Your task to perform on an android device: What's on my calendar tomorrow? Image 0: 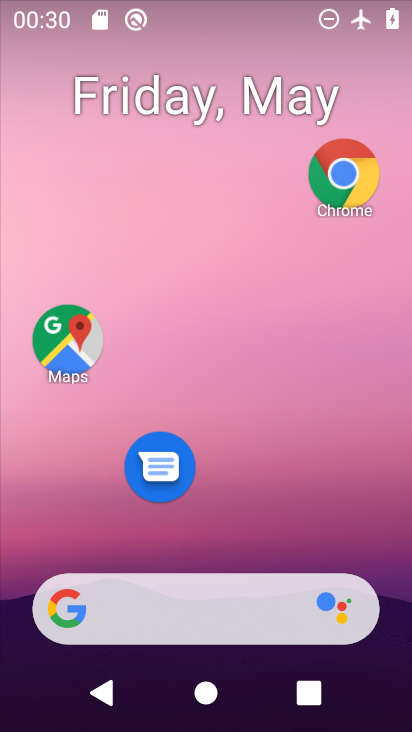
Step 0: drag from (275, 550) to (269, 289)
Your task to perform on an android device: What's on my calendar tomorrow? Image 1: 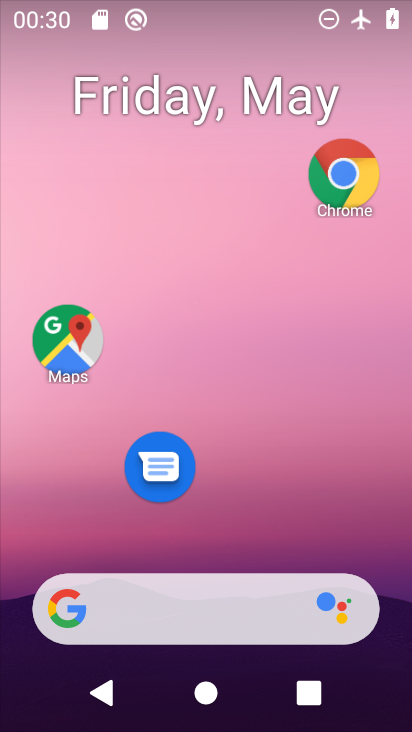
Step 1: drag from (268, 533) to (292, 320)
Your task to perform on an android device: What's on my calendar tomorrow? Image 2: 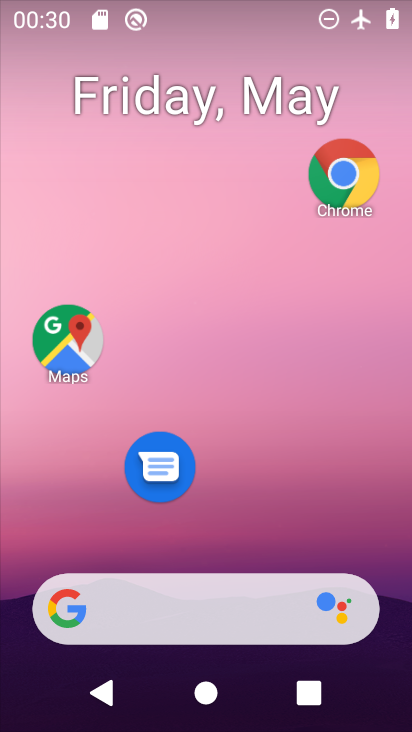
Step 2: drag from (235, 563) to (265, 242)
Your task to perform on an android device: What's on my calendar tomorrow? Image 3: 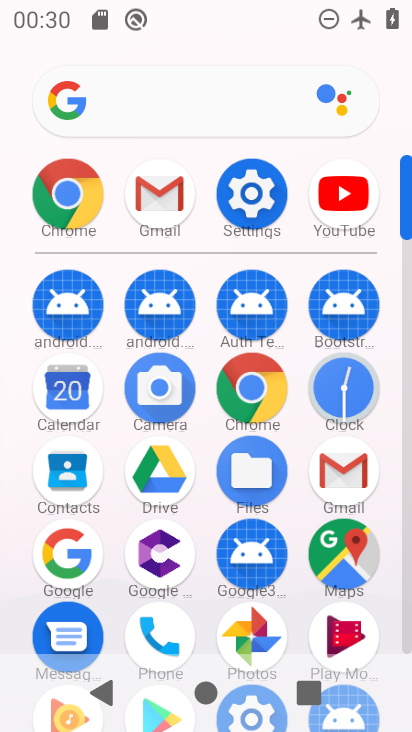
Step 3: click (53, 200)
Your task to perform on an android device: What's on my calendar tomorrow? Image 4: 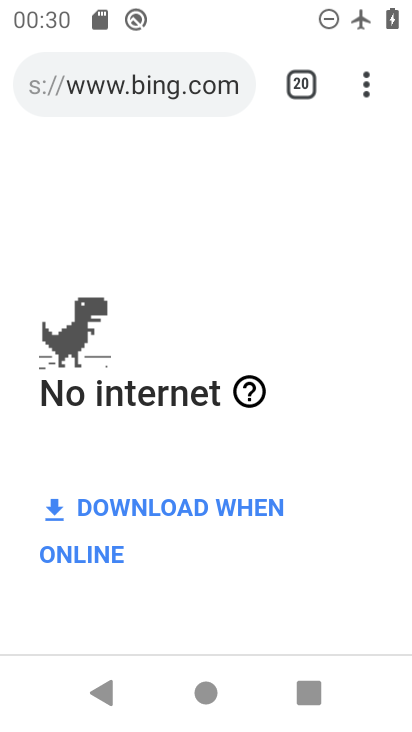
Step 4: click (352, 84)
Your task to perform on an android device: What's on my calendar tomorrow? Image 5: 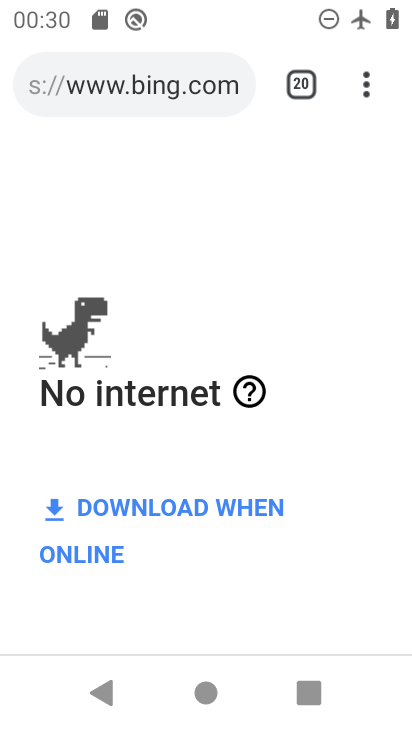
Step 5: click (356, 78)
Your task to perform on an android device: What's on my calendar tomorrow? Image 6: 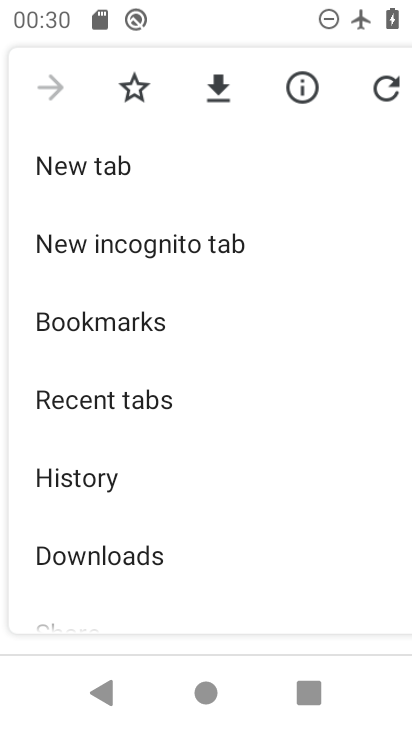
Step 6: click (97, 149)
Your task to perform on an android device: What's on my calendar tomorrow? Image 7: 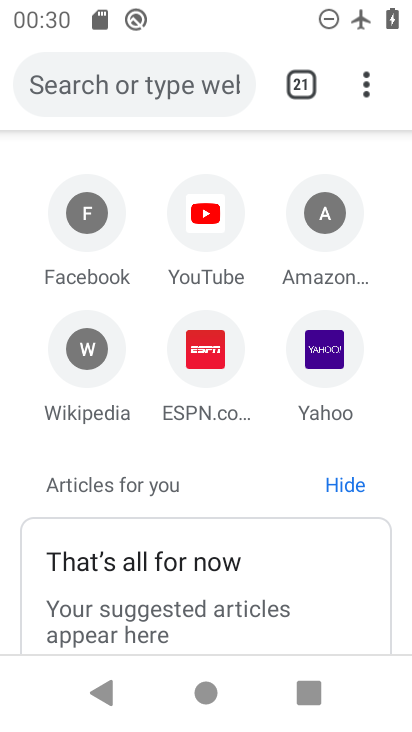
Step 7: click (131, 77)
Your task to perform on an android device: What's on my calendar tomorrow? Image 8: 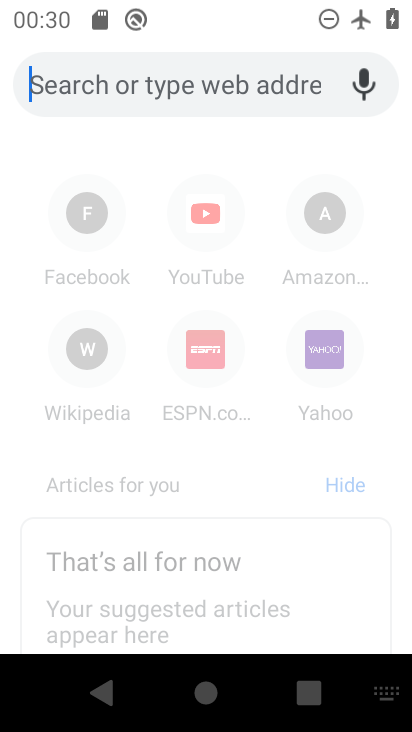
Step 8: click (170, 84)
Your task to perform on an android device: What's on my calendar tomorrow? Image 9: 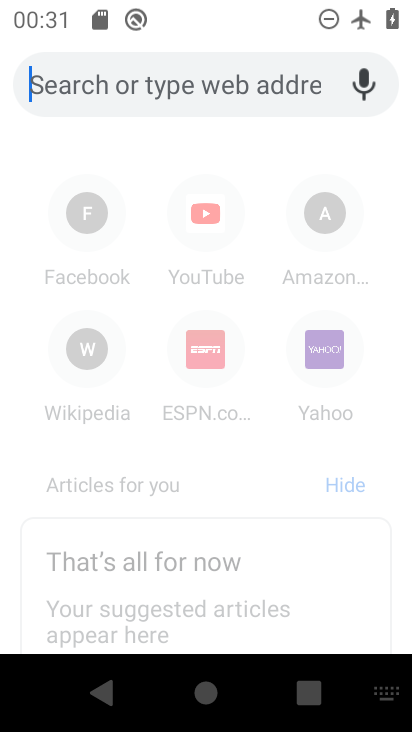
Step 9: type "What's on my calendar tomorrow?"
Your task to perform on an android device: What's on my calendar tomorrow? Image 10: 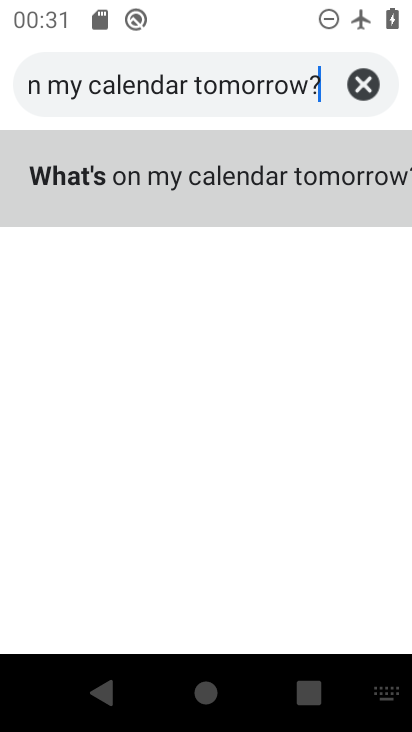
Step 10: click (85, 160)
Your task to perform on an android device: What's on my calendar tomorrow? Image 11: 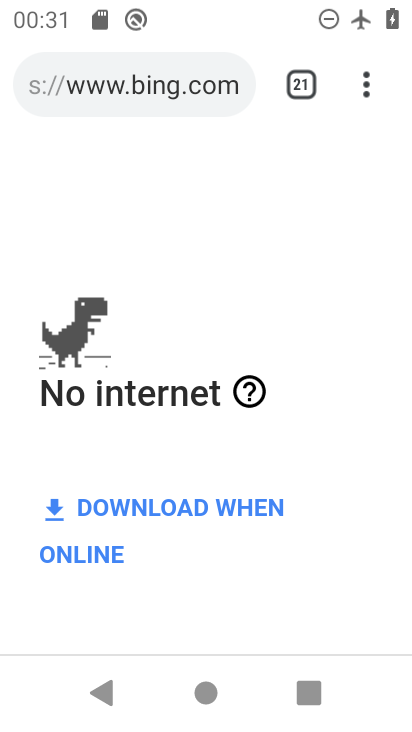
Step 11: task complete